Your task to perform on an android device: Search for seafood restaurants on Google Maps Image 0: 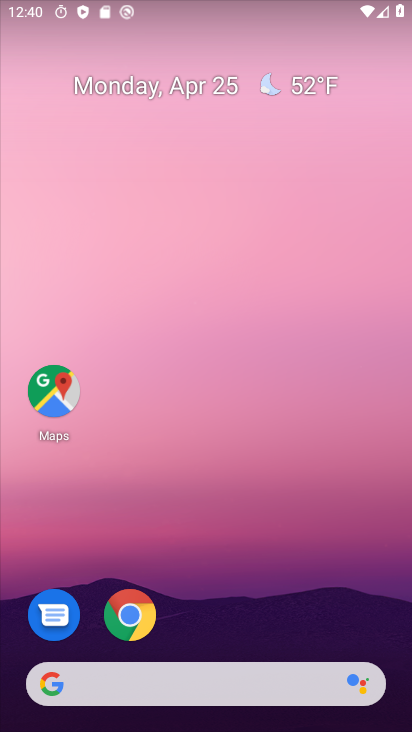
Step 0: drag from (196, 633) to (192, 58)
Your task to perform on an android device: Search for seafood restaurants on Google Maps Image 1: 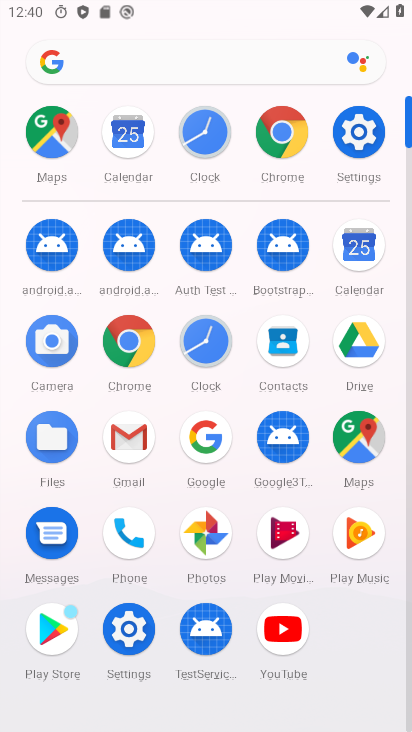
Step 1: click (357, 446)
Your task to perform on an android device: Search for seafood restaurants on Google Maps Image 2: 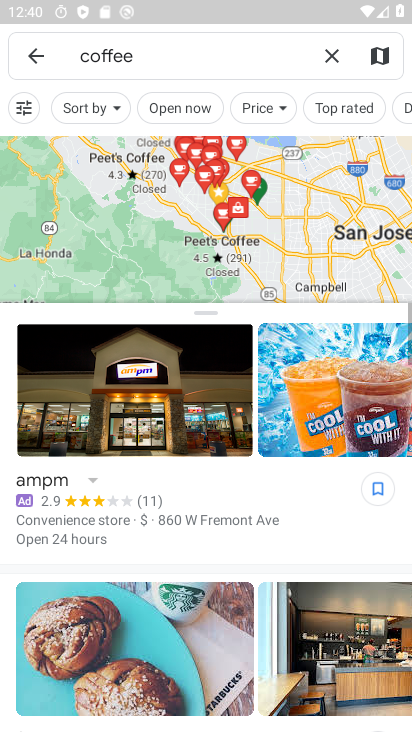
Step 2: click (329, 54)
Your task to perform on an android device: Search for seafood restaurants on Google Maps Image 3: 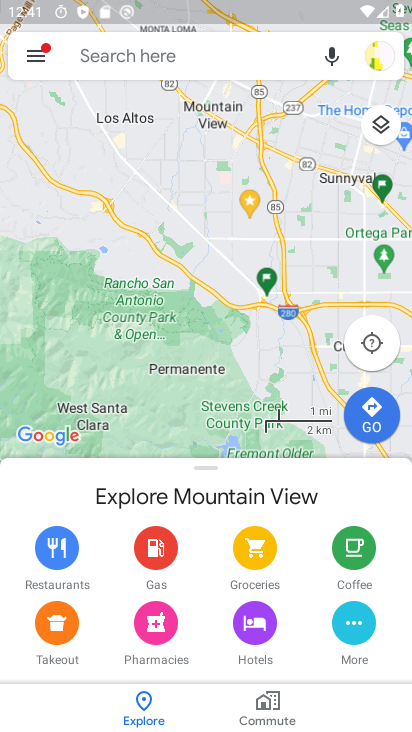
Step 3: click (177, 60)
Your task to perform on an android device: Search for seafood restaurants on Google Maps Image 4: 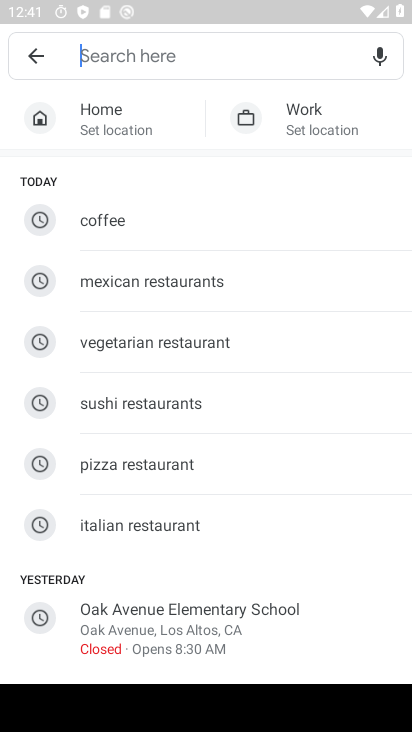
Step 4: type "seafood"
Your task to perform on an android device: Search for seafood restaurants on Google Maps Image 5: 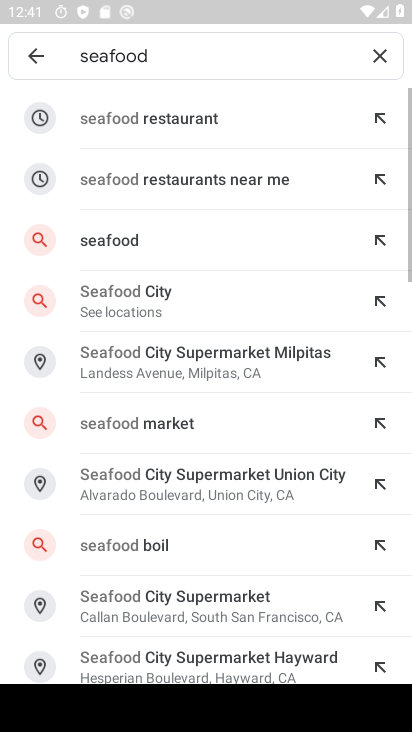
Step 5: click (154, 116)
Your task to perform on an android device: Search for seafood restaurants on Google Maps Image 6: 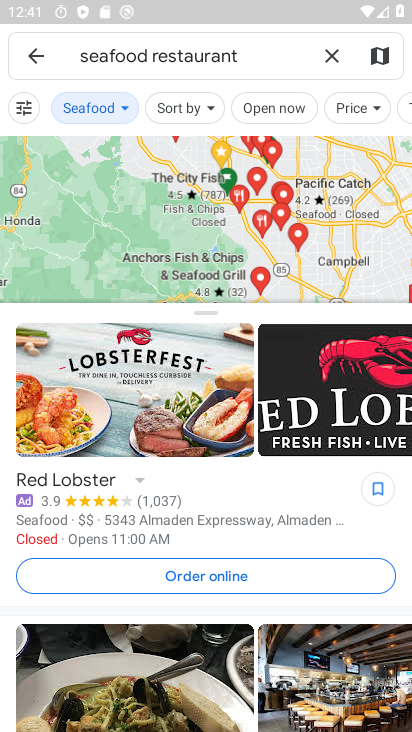
Step 6: task complete